Your task to perform on an android device: set default search engine in the chrome app Image 0: 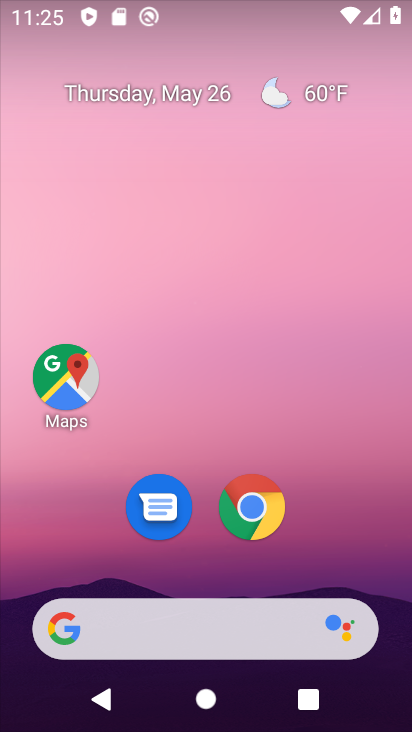
Step 0: click (263, 509)
Your task to perform on an android device: set default search engine in the chrome app Image 1: 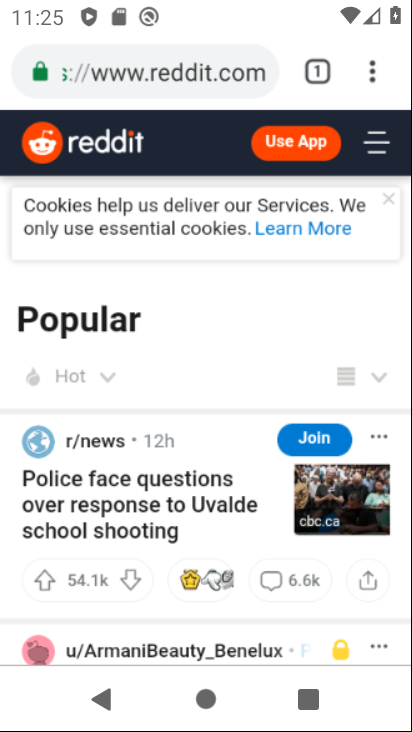
Step 1: click (263, 509)
Your task to perform on an android device: set default search engine in the chrome app Image 2: 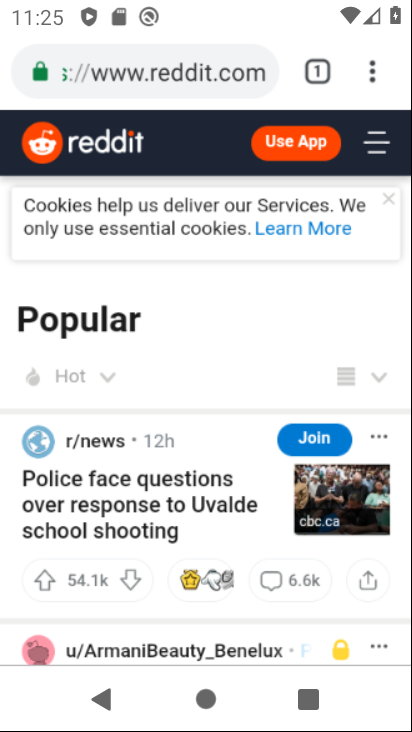
Step 2: click (263, 509)
Your task to perform on an android device: set default search engine in the chrome app Image 3: 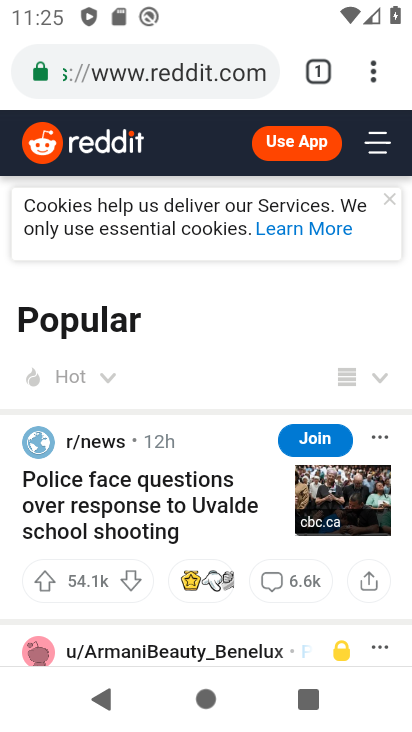
Step 3: click (372, 73)
Your task to perform on an android device: set default search engine in the chrome app Image 4: 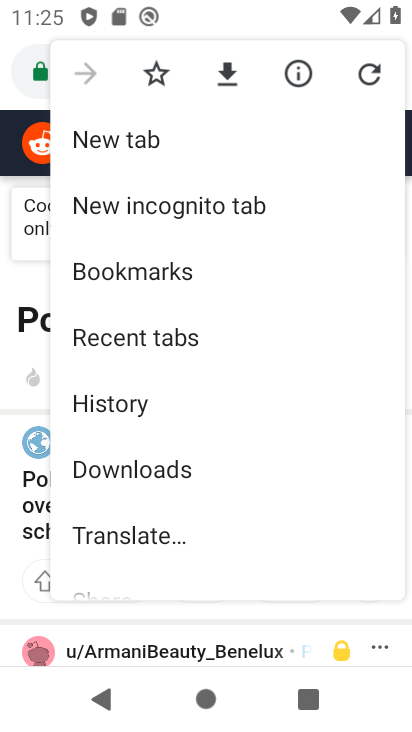
Step 4: drag from (207, 496) to (204, 306)
Your task to perform on an android device: set default search engine in the chrome app Image 5: 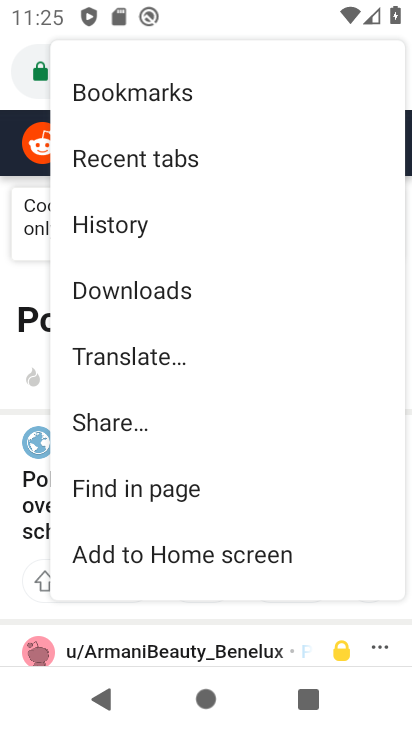
Step 5: drag from (211, 467) to (188, 283)
Your task to perform on an android device: set default search engine in the chrome app Image 6: 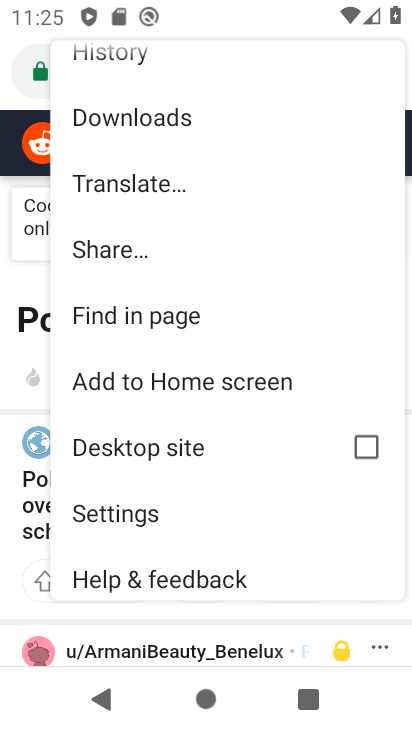
Step 6: click (143, 522)
Your task to perform on an android device: set default search engine in the chrome app Image 7: 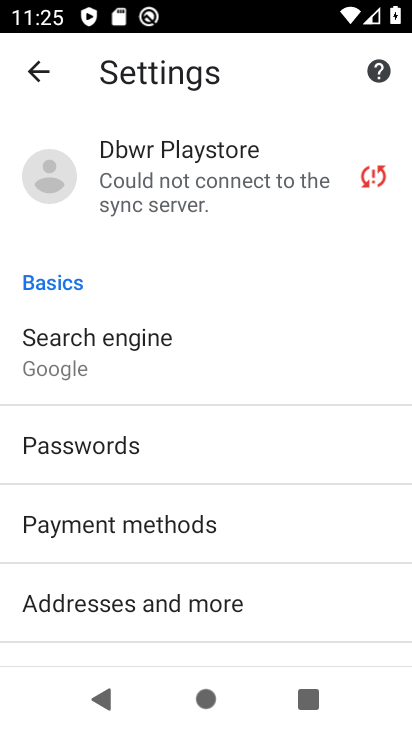
Step 7: click (143, 522)
Your task to perform on an android device: set default search engine in the chrome app Image 8: 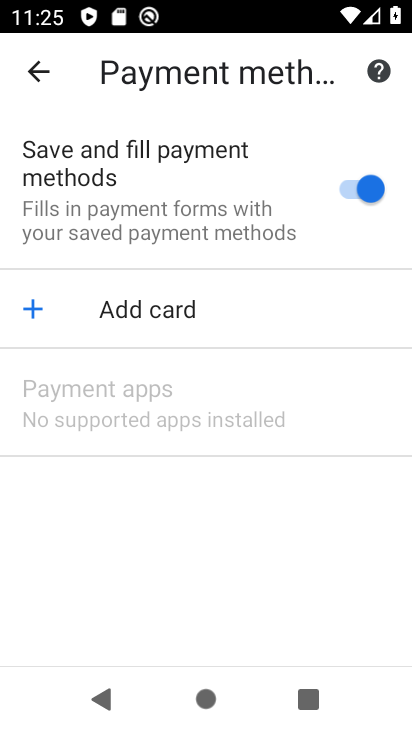
Step 8: click (32, 87)
Your task to perform on an android device: set default search engine in the chrome app Image 9: 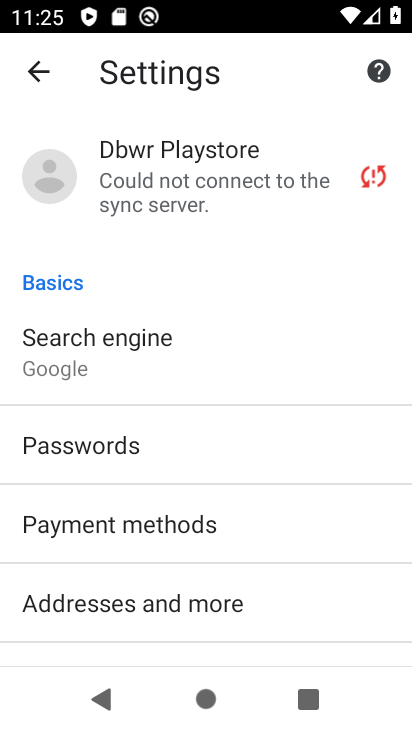
Step 9: click (163, 336)
Your task to perform on an android device: set default search engine in the chrome app Image 10: 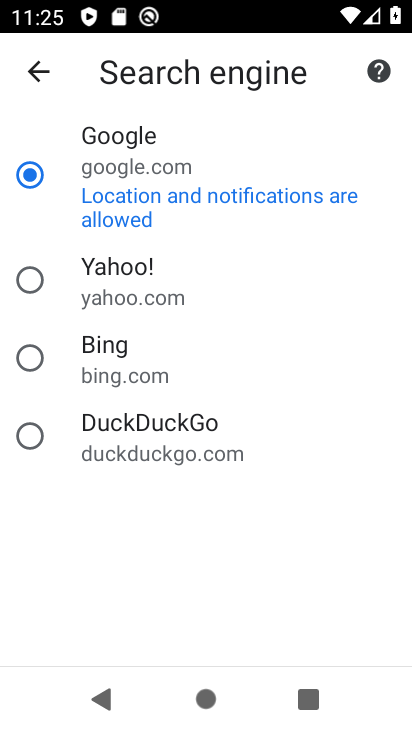
Step 10: click (186, 352)
Your task to perform on an android device: set default search engine in the chrome app Image 11: 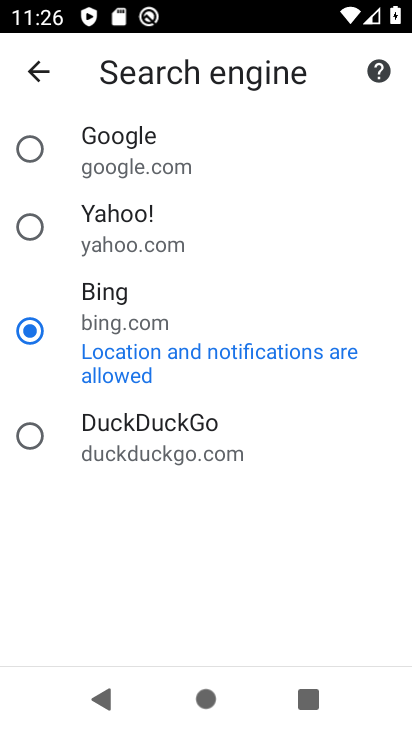
Step 11: task complete